Your task to perform on an android device: check out phone information Image 0: 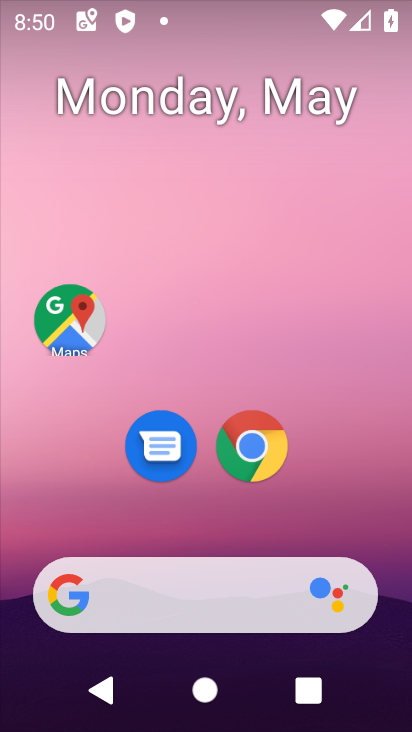
Step 0: press home button
Your task to perform on an android device: check out phone information Image 1: 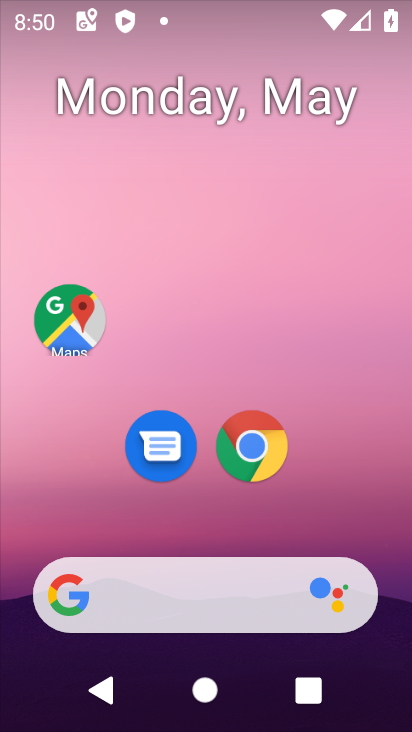
Step 1: drag from (200, 533) to (202, 128)
Your task to perform on an android device: check out phone information Image 2: 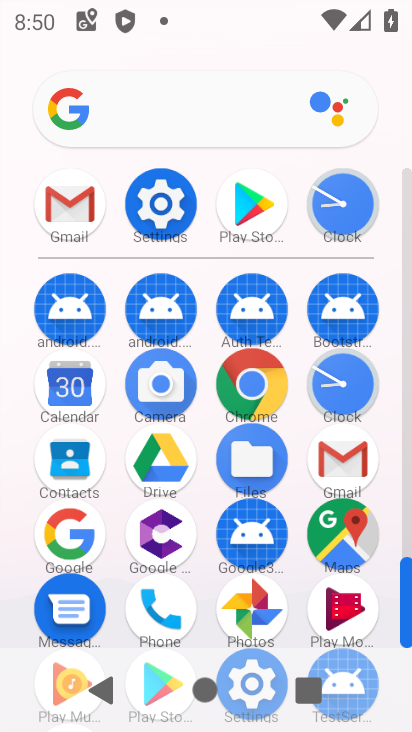
Step 2: click (159, 197)
Your task to perform on an android device: check out phone information Image 3: 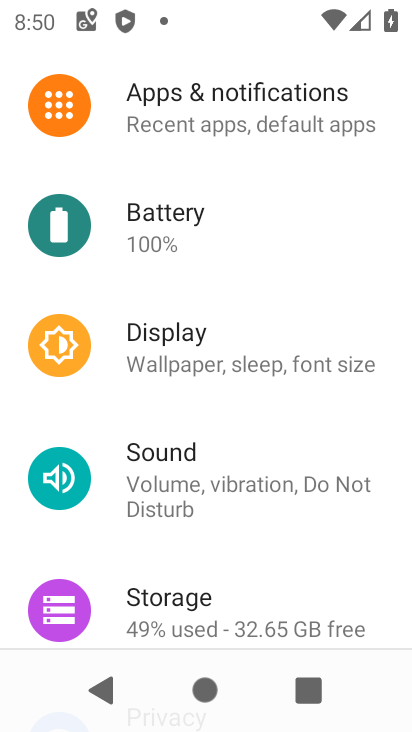
Step 3: drag from (230, 608) to (221, 106)
Your task to perform on an android device: check out phone information Image 4: 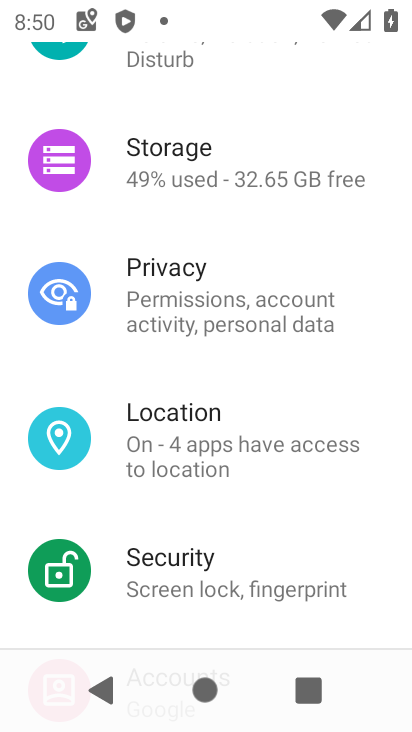
Step 4: drag from (223, 563) to (225, 85)
Your task to perform on an android device: check out phone information Image 5: 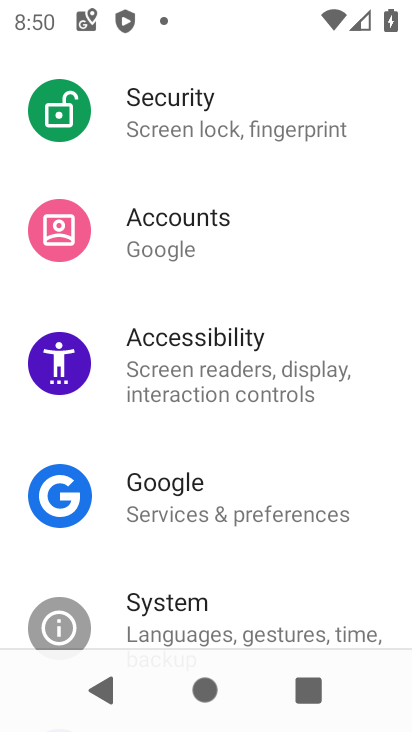
Step 5: drag from (231, 602) to (252, 168)
Your task to perform on an android device: check out phone information Image 6: 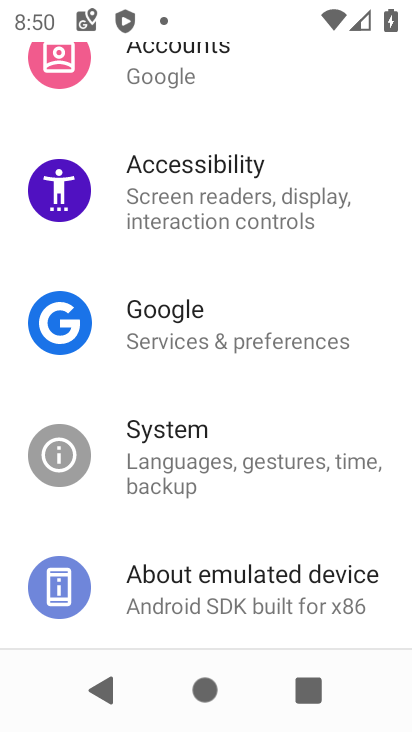
Step 6: click (241, 589)
Your task to perform on an android device: check out phone information Image 7: 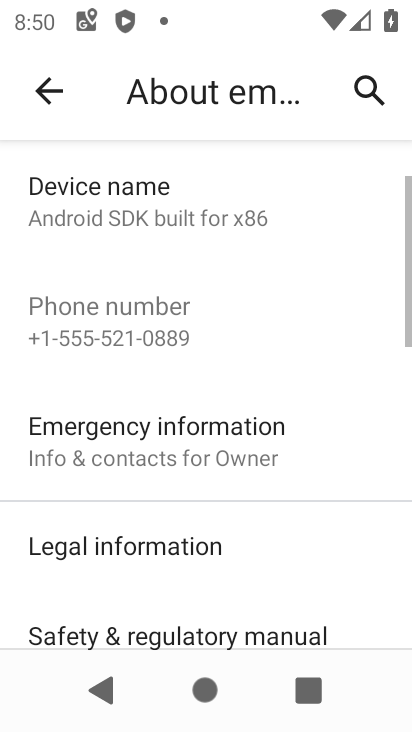
Step 7: task complete